Your task to perform on an android device: turn off notifications settings in the gmail app Image 0: 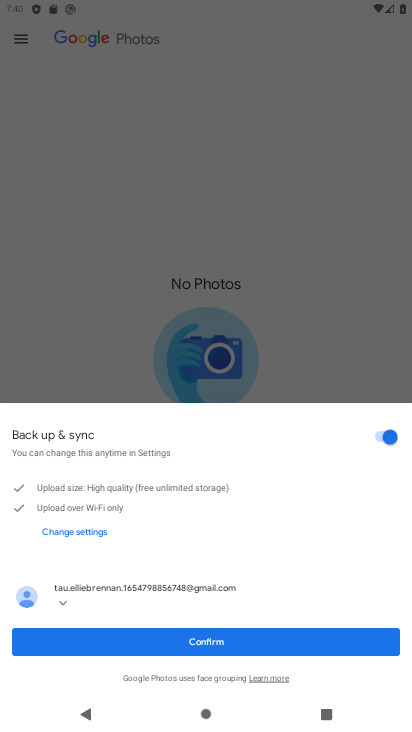
Step 0: press home button
Your task to perform on an android device: turn off notifications settings in the gmail app Image 1: 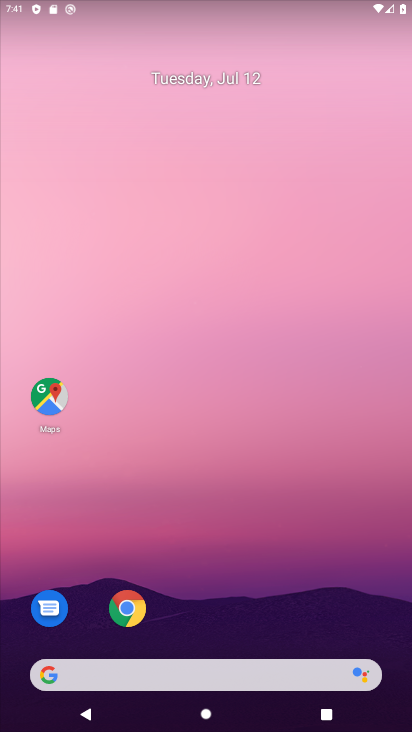
Step 1: drag from (177, 580) to (116, 66)
Your task to perform on an android device: turn off notifications settings in the gmail app Image 2: 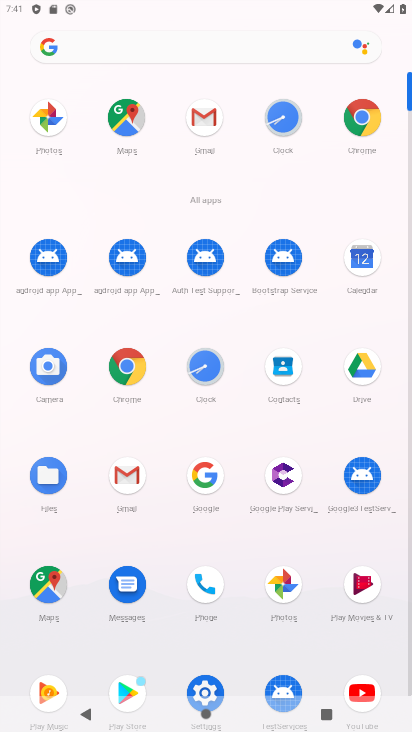
Step 2: click (133, 478)
Your task to perform on an android device: turn off notifications settings in the gmail app Image 3: 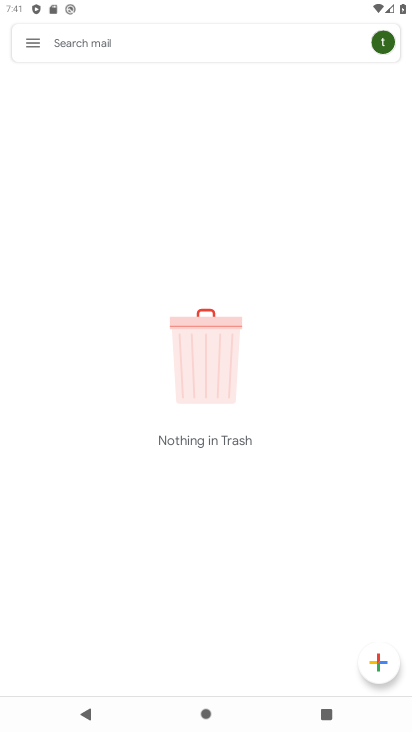
Step 3: click (31, 44)
Your task to perform on an android device: turn off notifications settings in the gmail app Image 4: 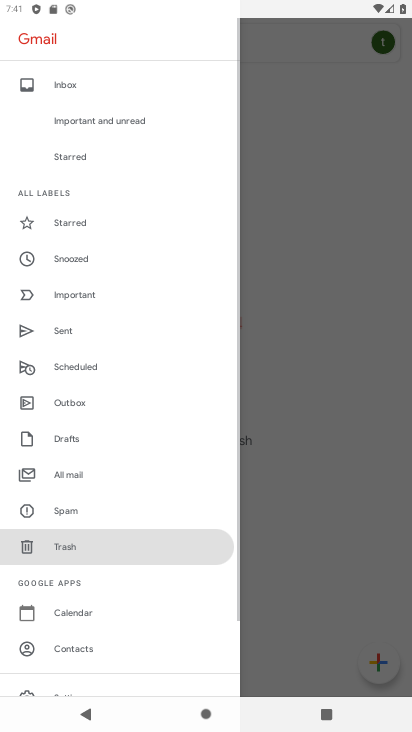
Step 4: drag from (102, 617) to (105, 269)
Your task to perform on an android device: turn off notifications settings in the gmail app Image 5: 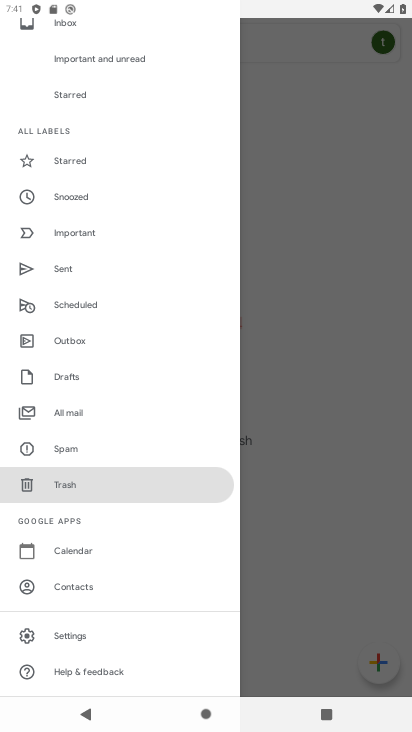
Step 5: click (57, 640)
Your task to perform on an android device: turn off notifications settings in the gmail app Image 6: 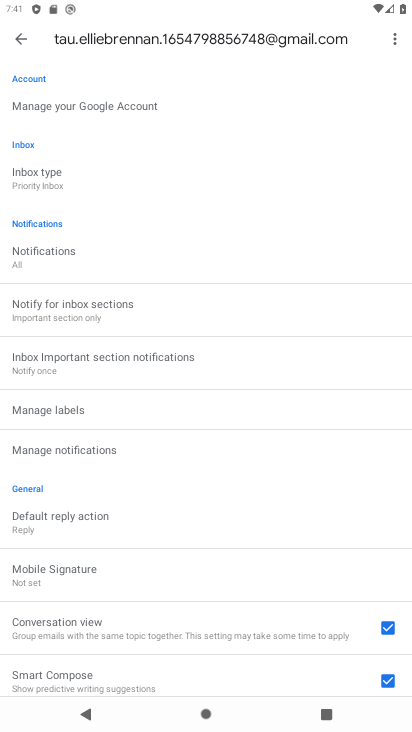
Step 6: click (20, 37)
Your task to perform on an android device: turn off notifications settings in the gmail app Image 7: 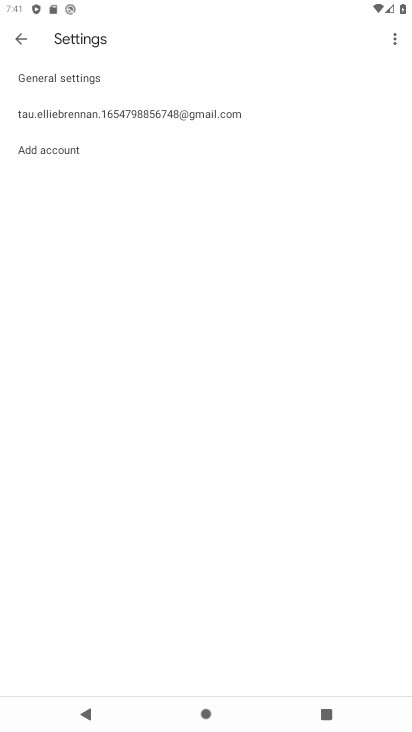
Step 7: click (13, 79)
Your task to perform on an android device: turn off notifications settings in the gmail app Image 8: 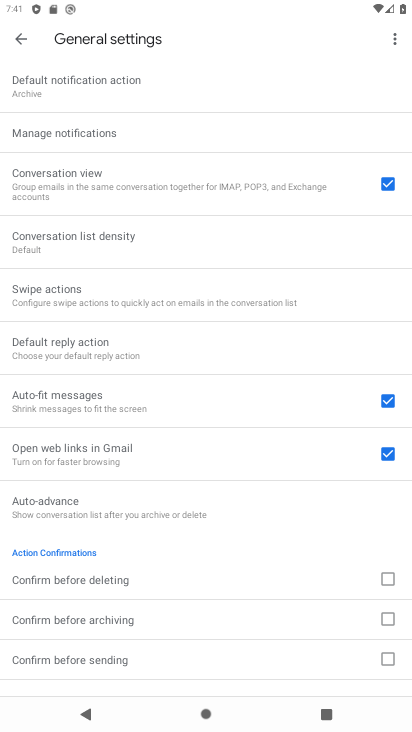
Step 8: click (68, 129)
Your task to perform on an android device: turn off notifications settings in the gmail app Image 9: 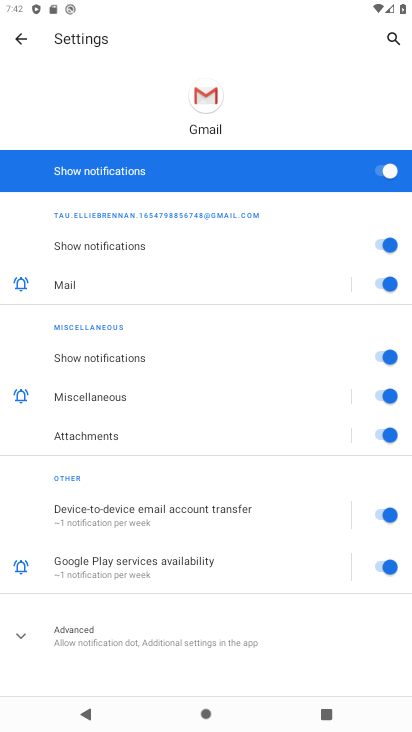
Step 9: click (384, 180)
Your task to perform on an android device: turn off notifications settings in the gmail app Image 10: 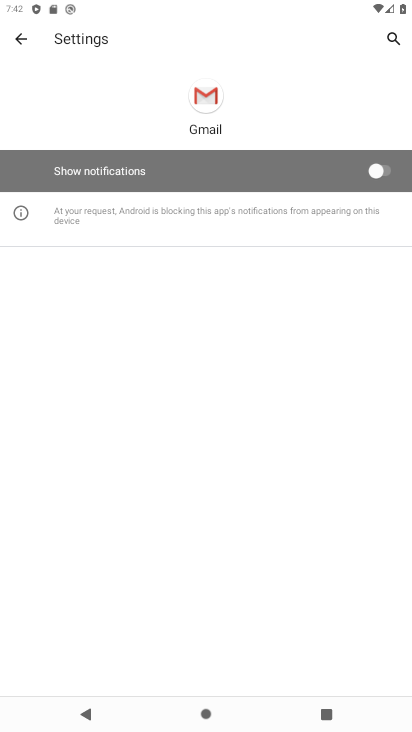
Step 10: task complete